Your task to perform on an android device: Open Maps and search for coffee Image 0: 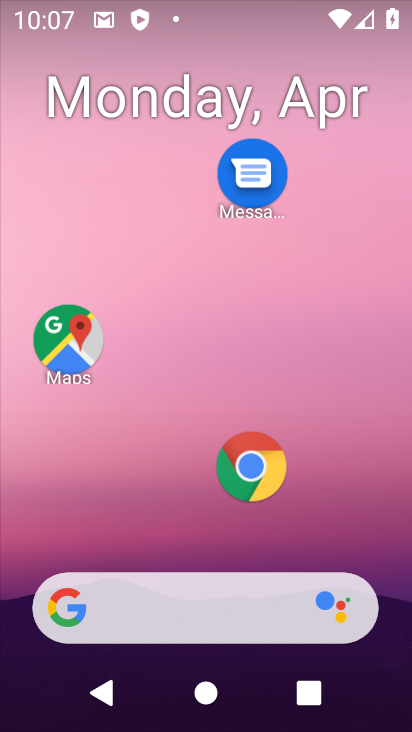
Step 0: click (58, 354)
Your task to perform on an android device: Open Maps and search for coffee Image 1: 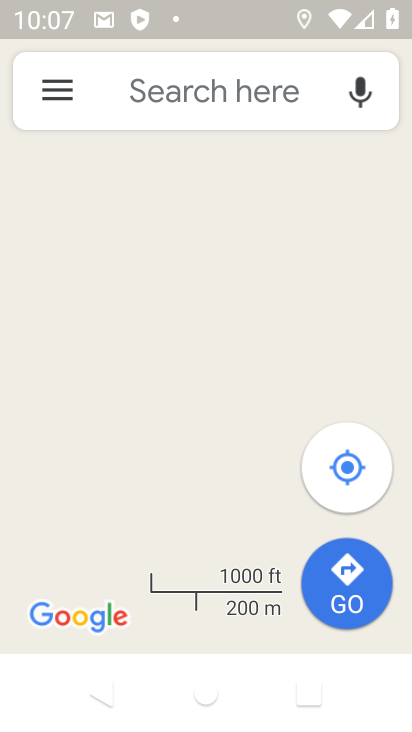
Step 1: click (183, 85)
Your task to perform on an android device: Open Maps and search for coffee Image 2: 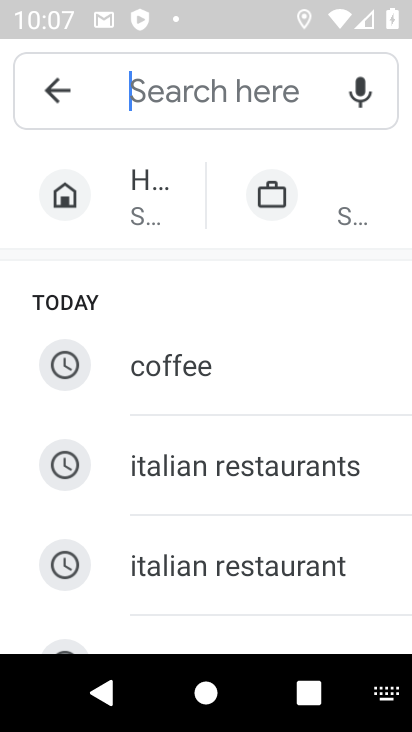
Step 2: type "coffee"
Your task to perform on an android device: Open Maps and search for coffee Image 3: 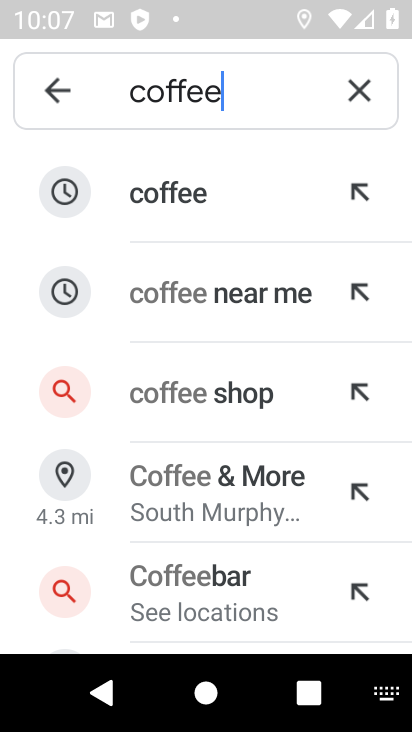
Step 3: click (240, 196)
Your task to perform on an android device: Open Maps and search for coffee Image 4: 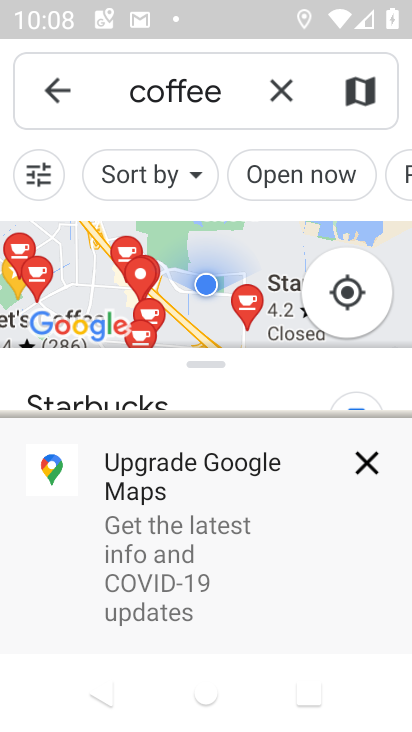
Step 4: task complete